Your task to perform on an android device: find snoozed emails in the gmail app Image 0: 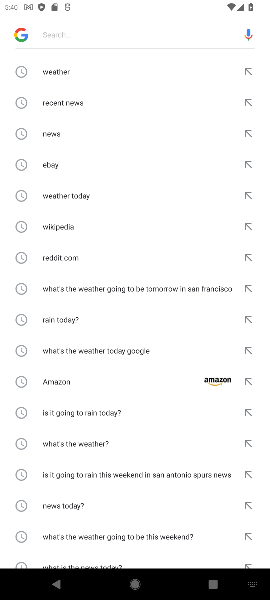
Step 0: press home button
Your task to perform on an android device: find snoozed emails in the gmail app Image 1: 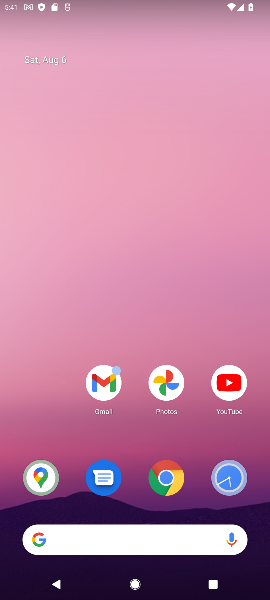
Step 1: drag from (152, 516) to (119, 122)
Your task to perform on an android device: find snoozed emails in the gmail app Image 2: 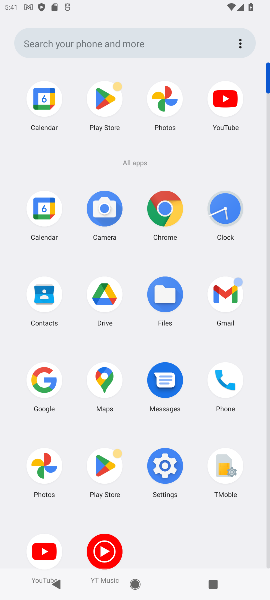
Step 2: click (223, 290)
Your task to perform on an android device: find snoozed emails in the gmail app Image 3: 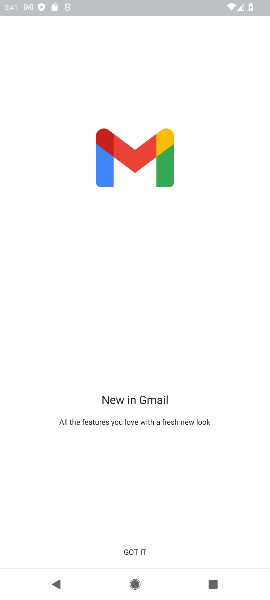
Step 3: click (143, 544)
Your task to perform on an android device: find snoozed emails in the gmail app Image 4: 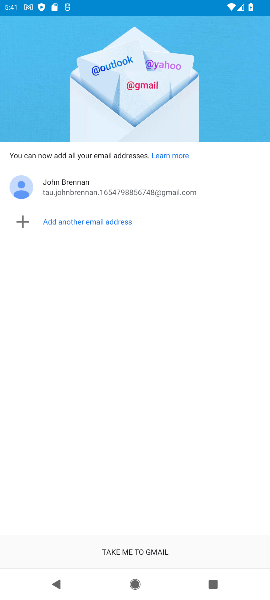
Step 4: click (134, 551)
Your task to perform on an android device: find snoozed emails in the gmail app Image 5: 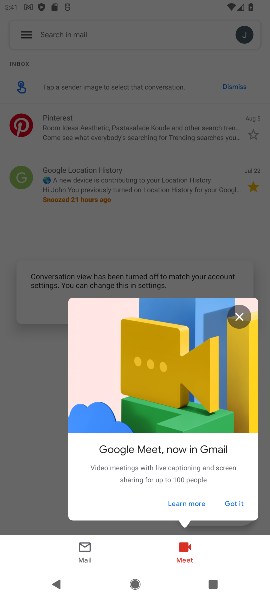
Step 5: click (237, 317)
Your task to perform on an android device: find snoozed emails in the gmail app Image 6: 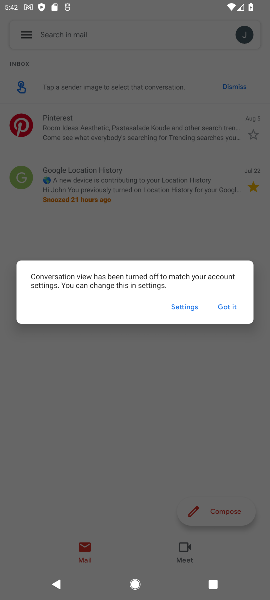
Step 6: click (227, 313)
Your task to perform on an android device: find snoozed emails in the gmail app Image 7: 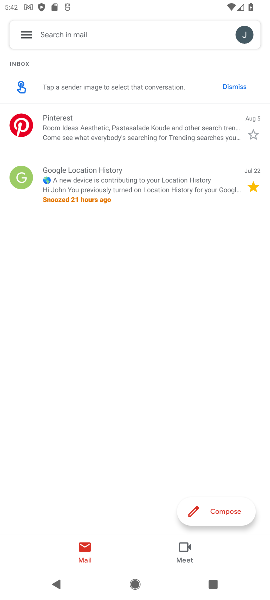
Step 7: click (30, 30)
Your task to perform on an android device: find snoozed emails in the gmail app Image 8: 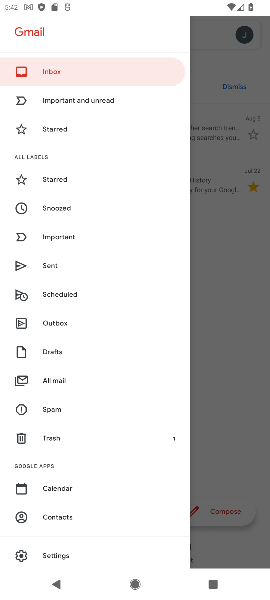
Step 8: click (52, 208)
Your task to perform on an android device: find snoozed emails in the gmail app Image 9: 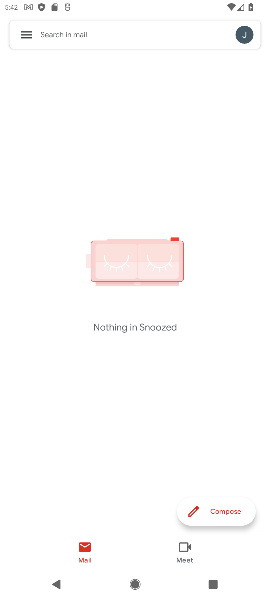
Step 9: task complete